Your task to perform on an android device: turn on bluetooth scan Image 0: 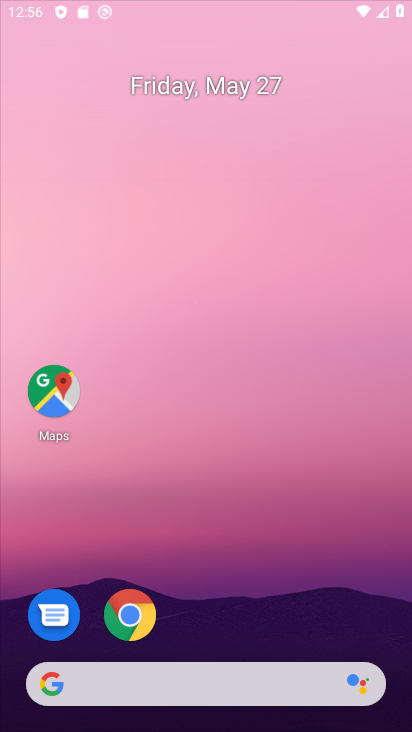
Step 0: press home button
Your task to perform on an android device: turn on bluetooth scan Image 1: 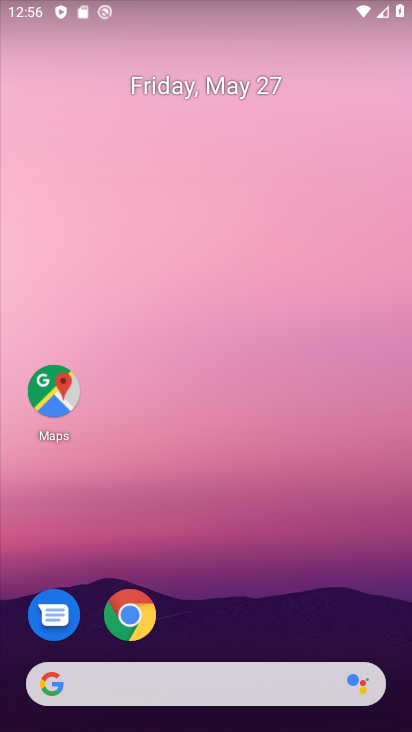
Step 1: drag from (251, 627) to (272, 0)
Your task to perform on an android device: turn on bluetooth scan Image 2: 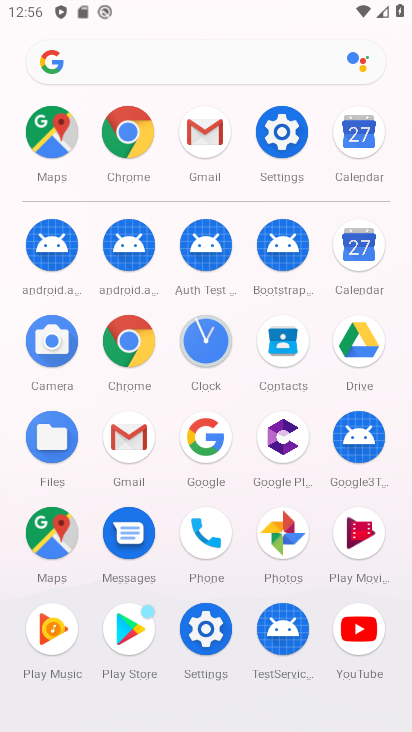
Step 2: click (279, 133)
Your task to perform on an android device: turn on bluetooth scan Image 3: 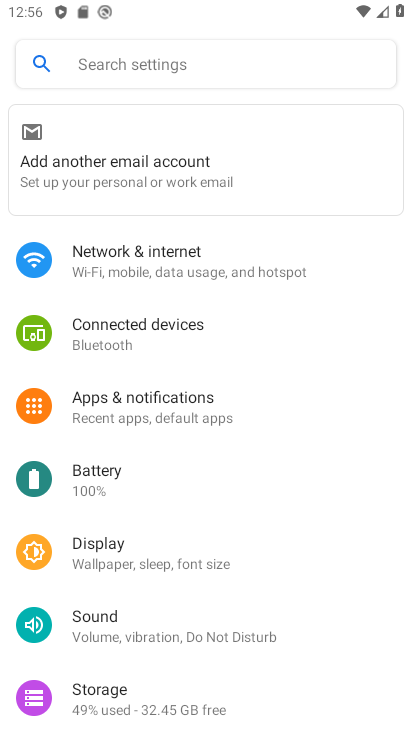
Step 3: drag from (271, 605) to (278, 251)
Your task to perform on an android device: turn on bluetooth scan Image 4: 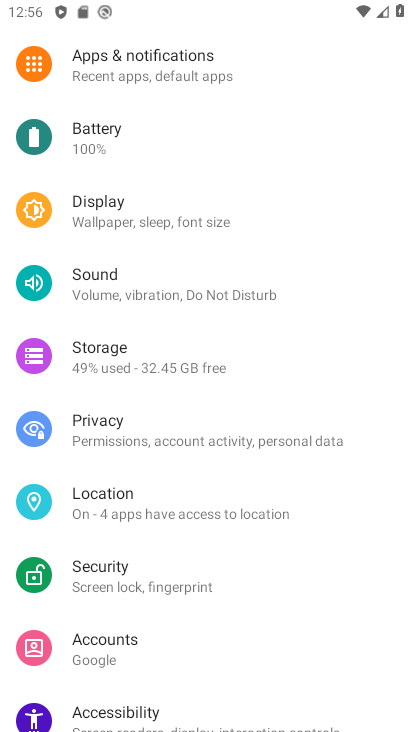
Step 4: click (125, 499)
Your task to perform on an android device: turn on bluetooth scan Image 5: 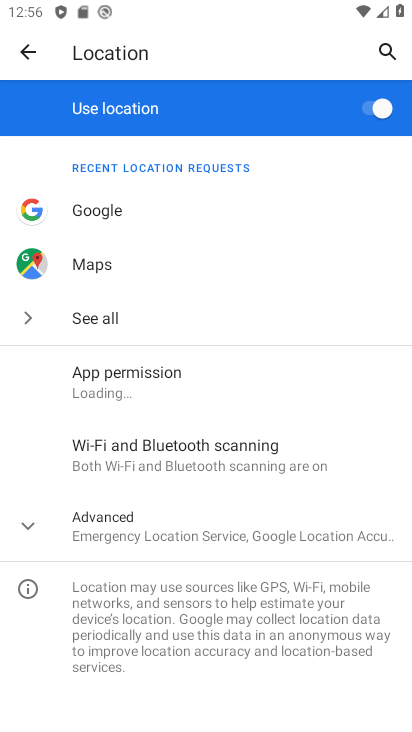
Step 5: click (125, 452)
Your task to perform on an android device: turn on bluetooth scan Image 6: 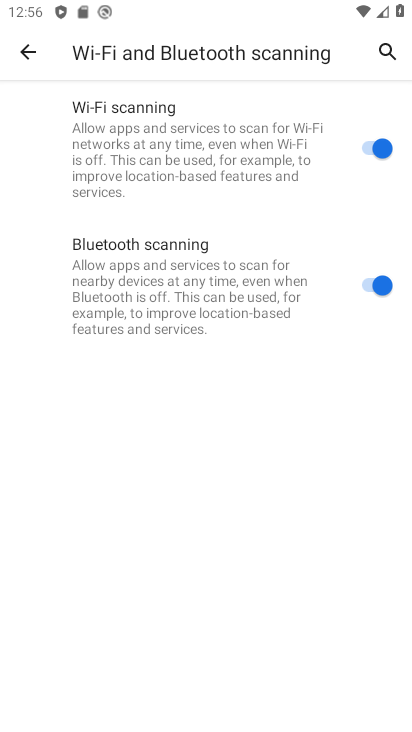
Step 6: task complete